Your task to perform on an android device: Open privacy settings Image 0: 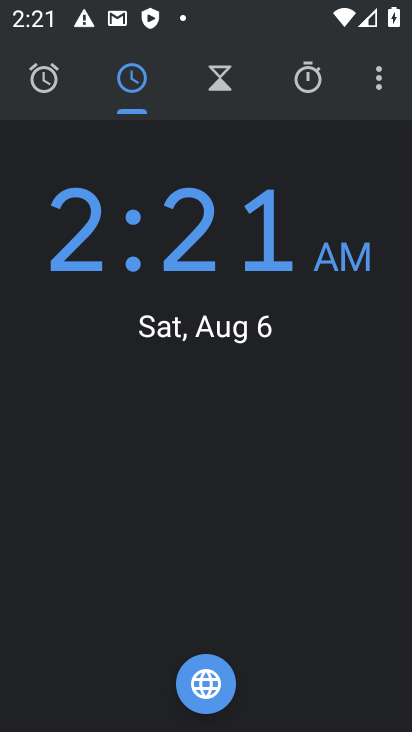
Step 0: press home button
Your task to perform on an android device: Open privacy settings Image 1: 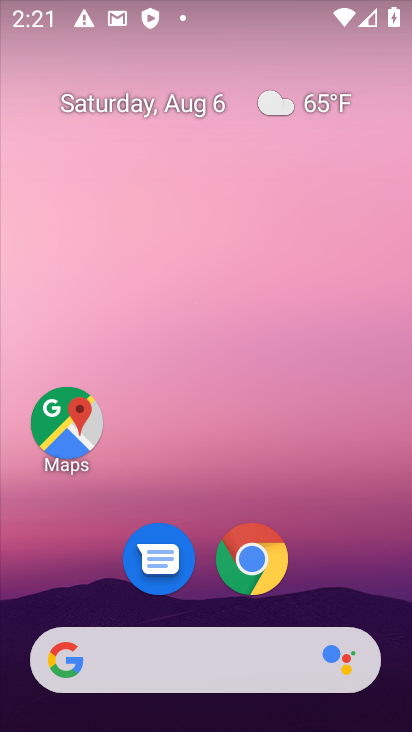
Step 1: drag from (222, 476) to (105, 161)
Your task to perform on an android device: Open privacy settings Image 2: 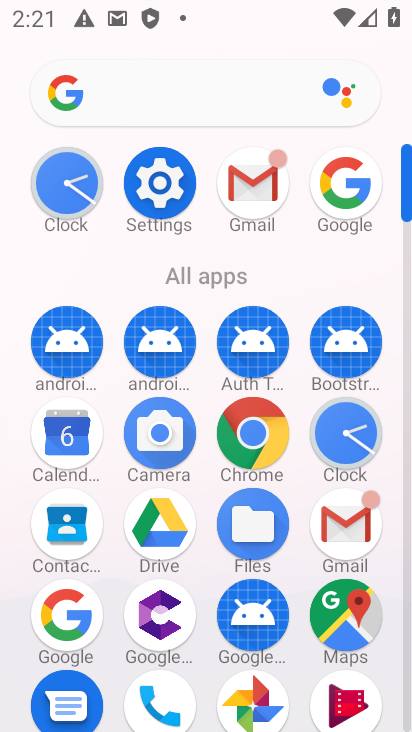
Step 2: click (161, 192)
Your task to perform on an android device: Open privacy settings Image 3: 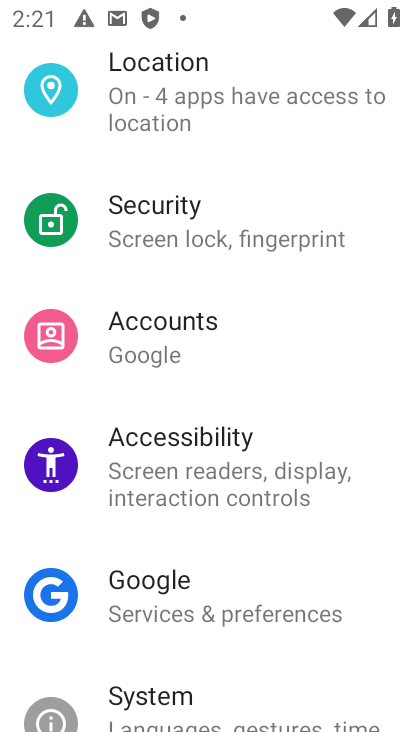
Step 3: drag from (215, 189) to (251, 535)
Your task to perform on an android device: Open privacy settings Image 4: 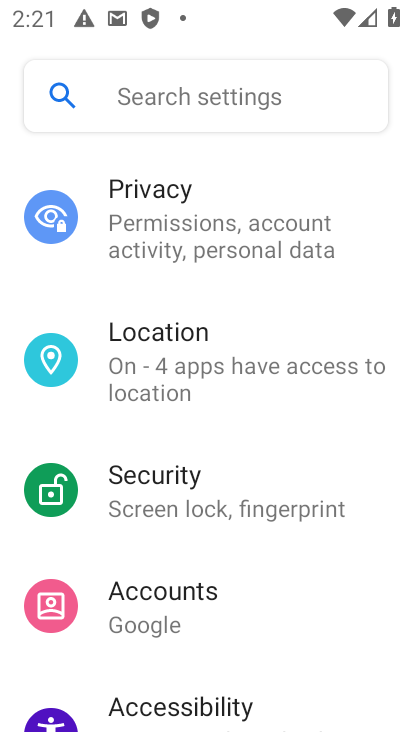
Step 4: click (223, 226)
Your task to perform on an android device: Open privacy settings Image 5: 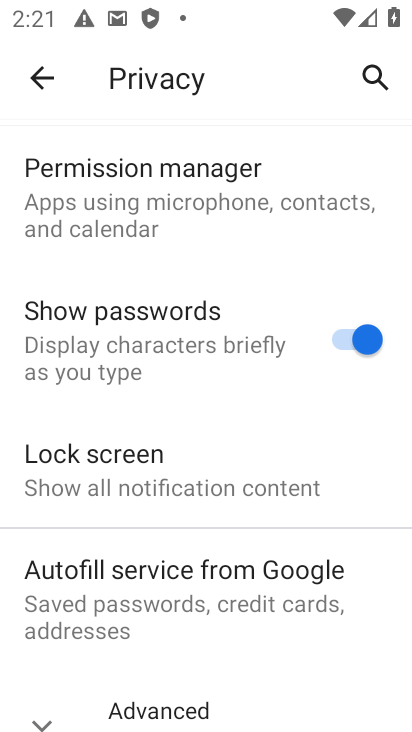
Step 5: task complete